Your task to perform on an android device: Go to Yahoo.com Image 0: 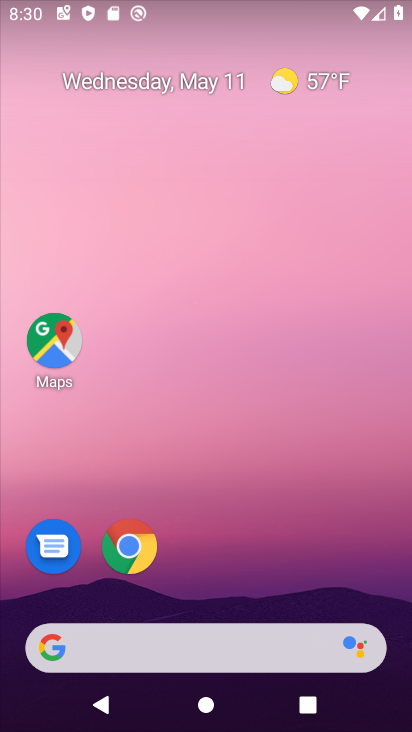
Step 0: click (140, 543)
Your task to perform on an android device: Go to Yahoo.com Image 1: 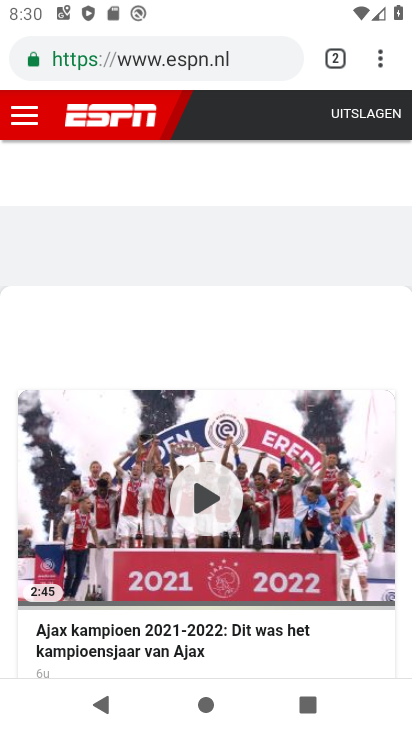
Step 1: click (333, 52)
Your task to perform on an android device: Go to Yahoo.com Image 2: 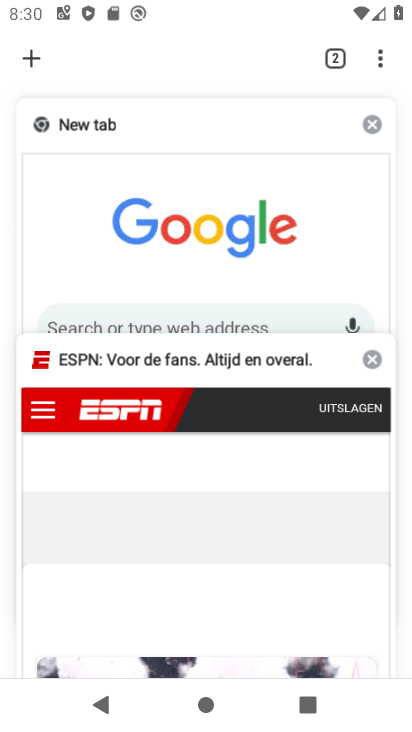
Step 2: click (33, 59)
Your task to perform on an android device: Go to Yahoo.com Image 3: 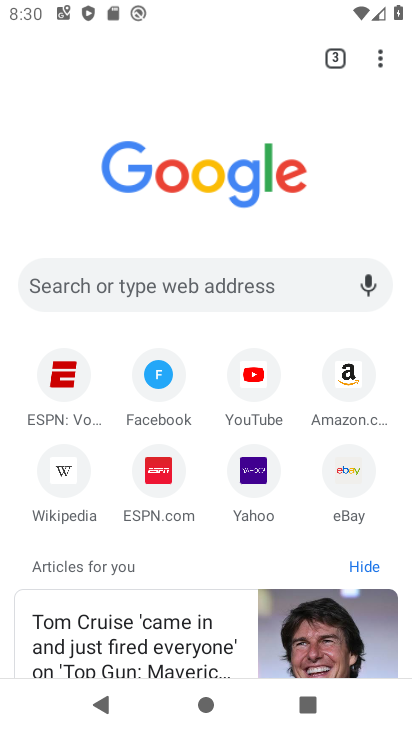
Step 3: click (255, 494)
Your task to perform on an android device: Go to Yahoo.com Image 4: 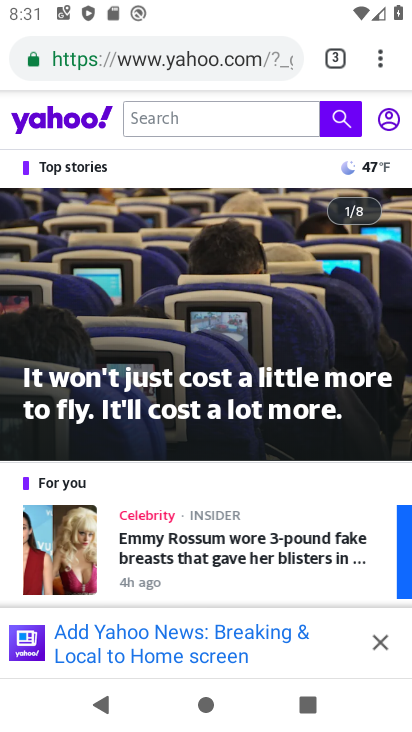
Step 4: task complete